Your task to perform on an android device: Open Google Chrome Image 0: 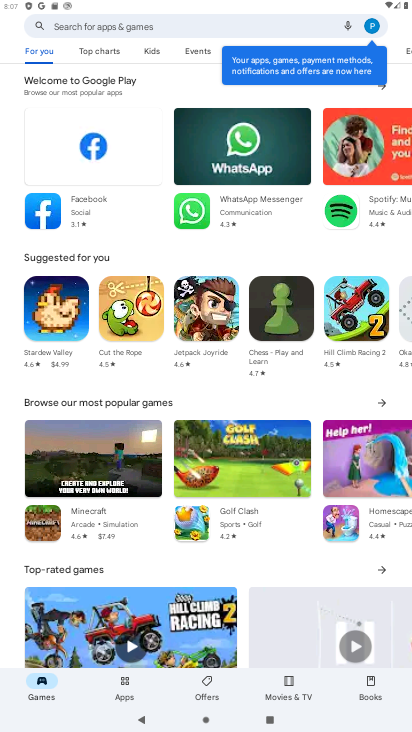
Step 0: press home button
Your task to perform on an android device: Open Google Chrome Image 1: 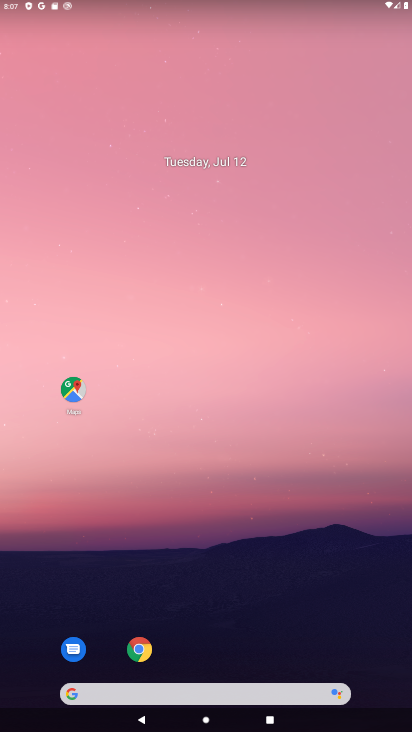
Step 1: click (148, 649)
Your task to perform on an android device: Open Google Chrome Image 2: 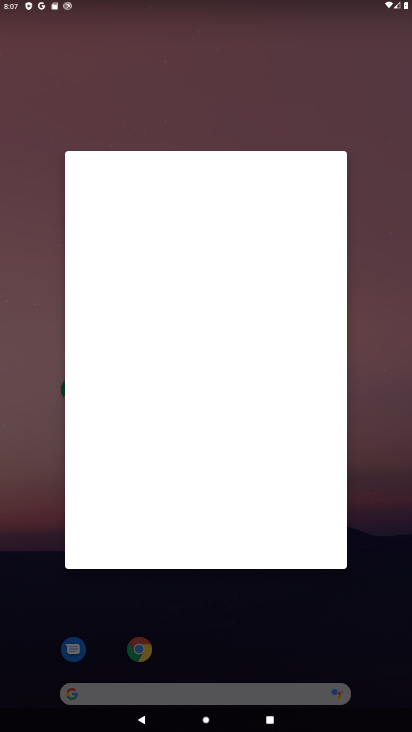
Step 2: task complete